Your task to perform on an android device: change the clock display to analog Image 0: 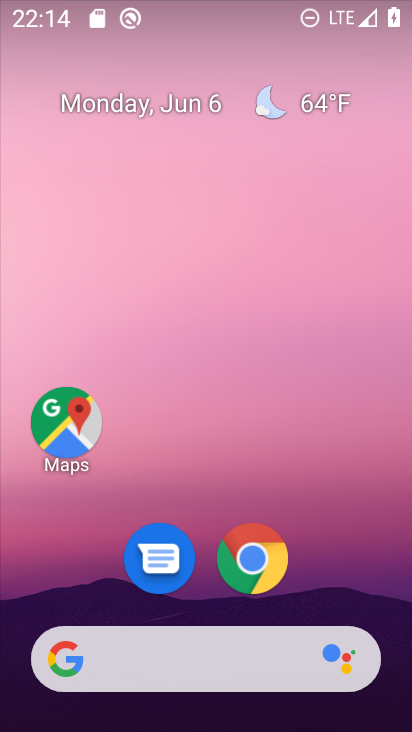
Step 0: drag from (217, 724) to (225, 10)
Your task to perform on an android device: change the clock display to analog Image 1: 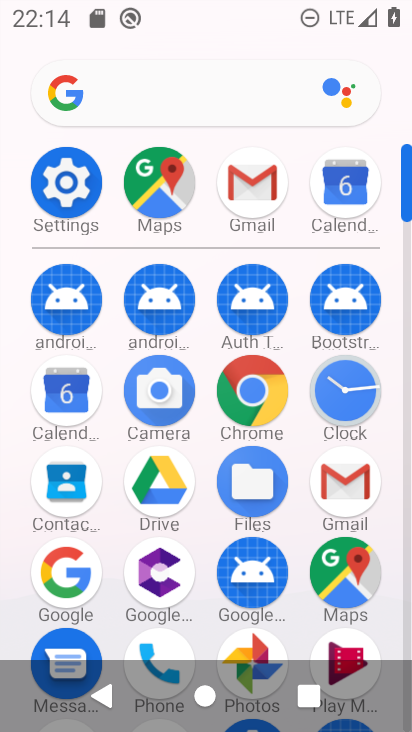
Step 1: click (337, 390)
Your task to perform on an android device: change the clock display to analog Image 2: 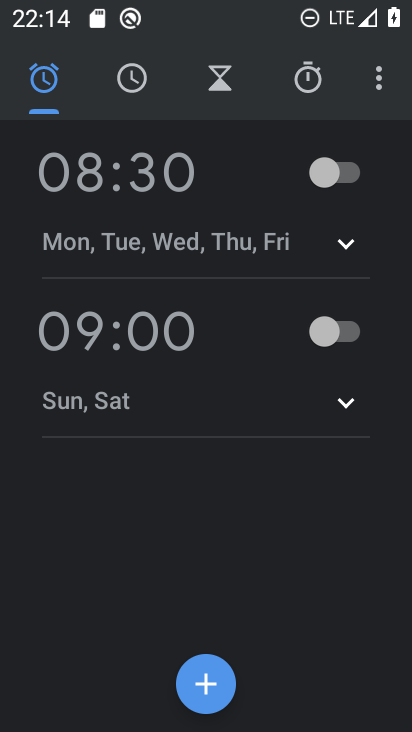
Step 2: click (380, 91)
Your task to perform on an android device: change the clock display to analog Image 3: 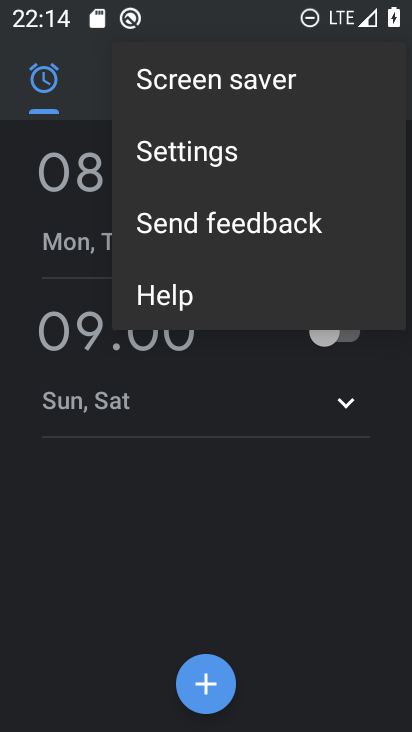
Step 3: click (175, 159)
Your task to perform on an android device: change the clock display to analog Image 4: 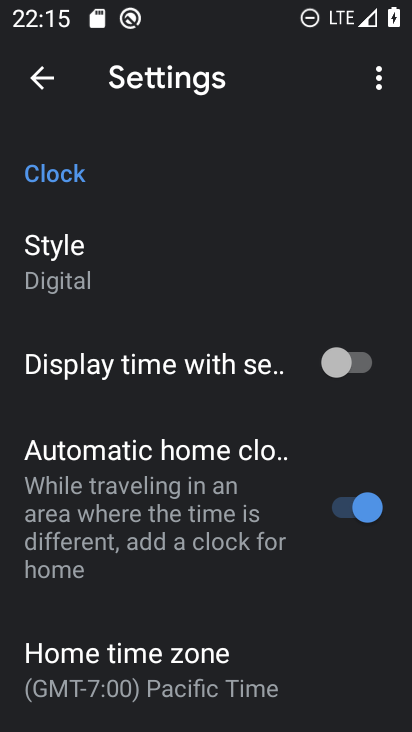
Step 4: click (69, 256)
Your task to perform on an android device: change the clock display to analog Image 5: 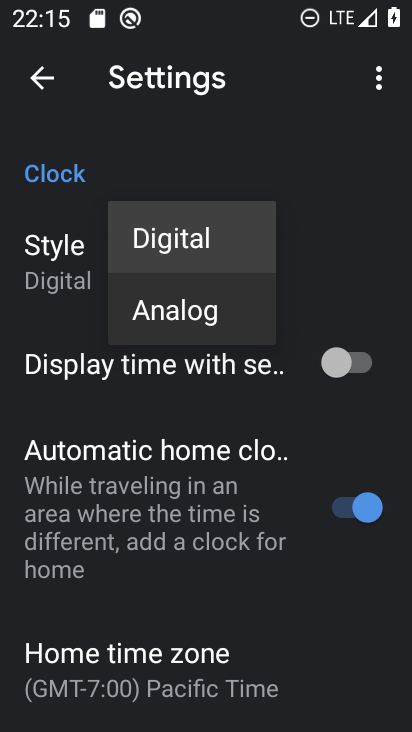
Step 5: click (168, 304)
Your task to perform on an android device: change the clock display to analog Image 6: 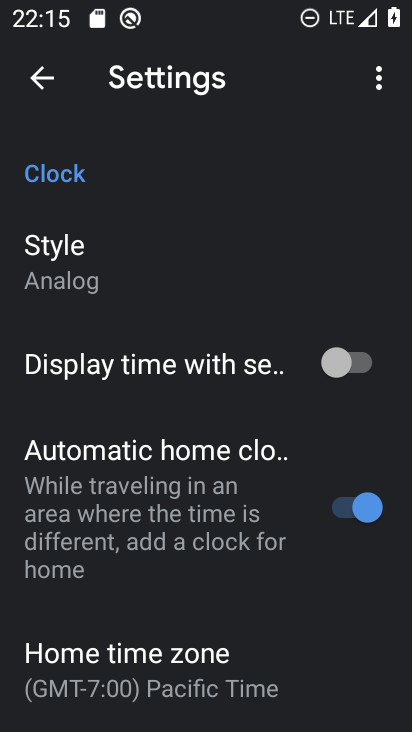
Step 6: task complete